Your task to perform on an android device: Open sound settings Image 0: 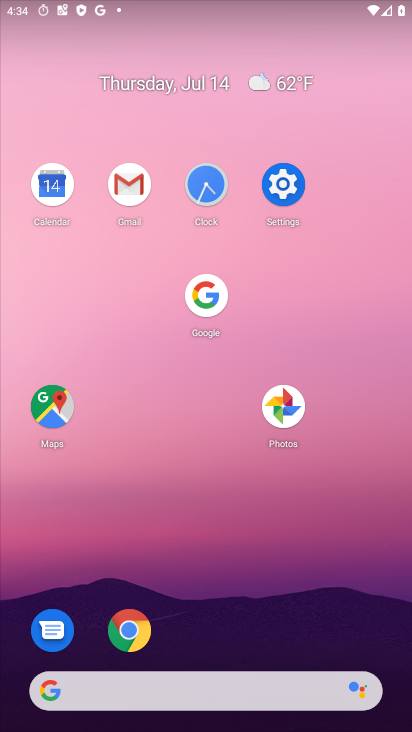
Step 0: click (294, 180)
Your task to perform on an android device: Open sound settings Image 1: 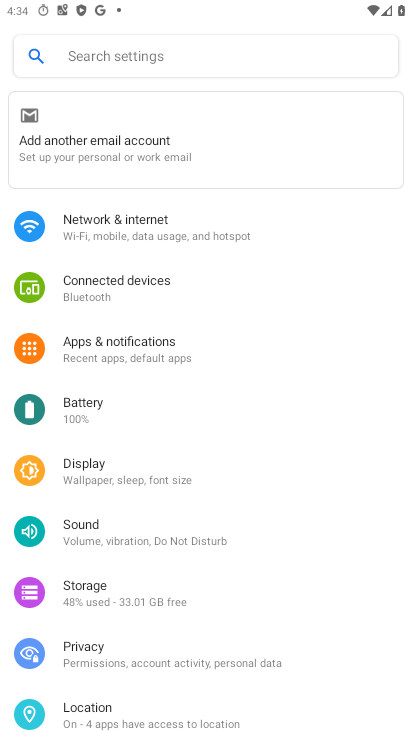
Step 1: click (110, 539)
Your task to perform on an android device: Open sound settings Image 2: 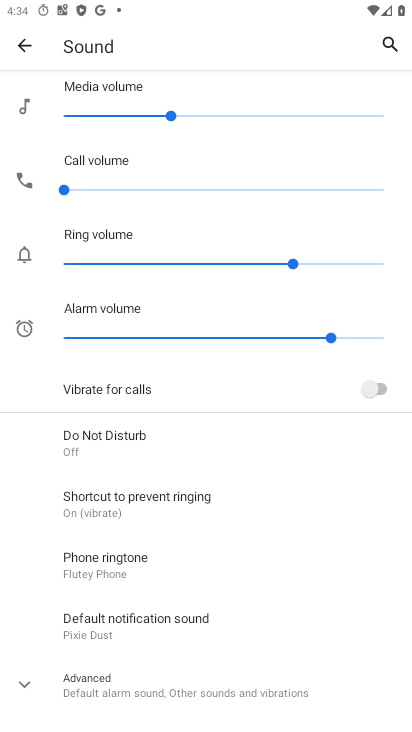
Step 2: task complete